Your task to perform on an android device: Check the weather Image 0: 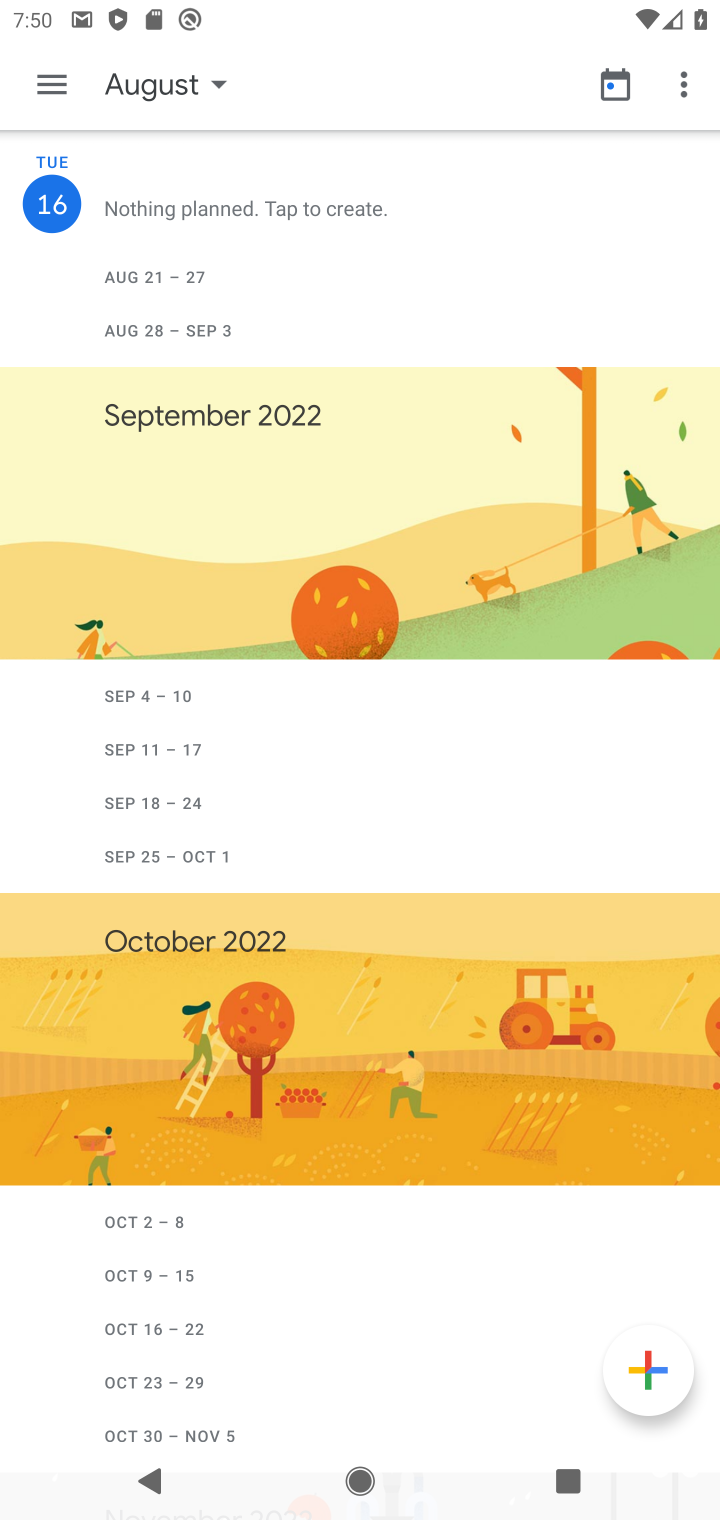
Step 0: press home button
Your task to perform on an android device: Check the weather Image 1: 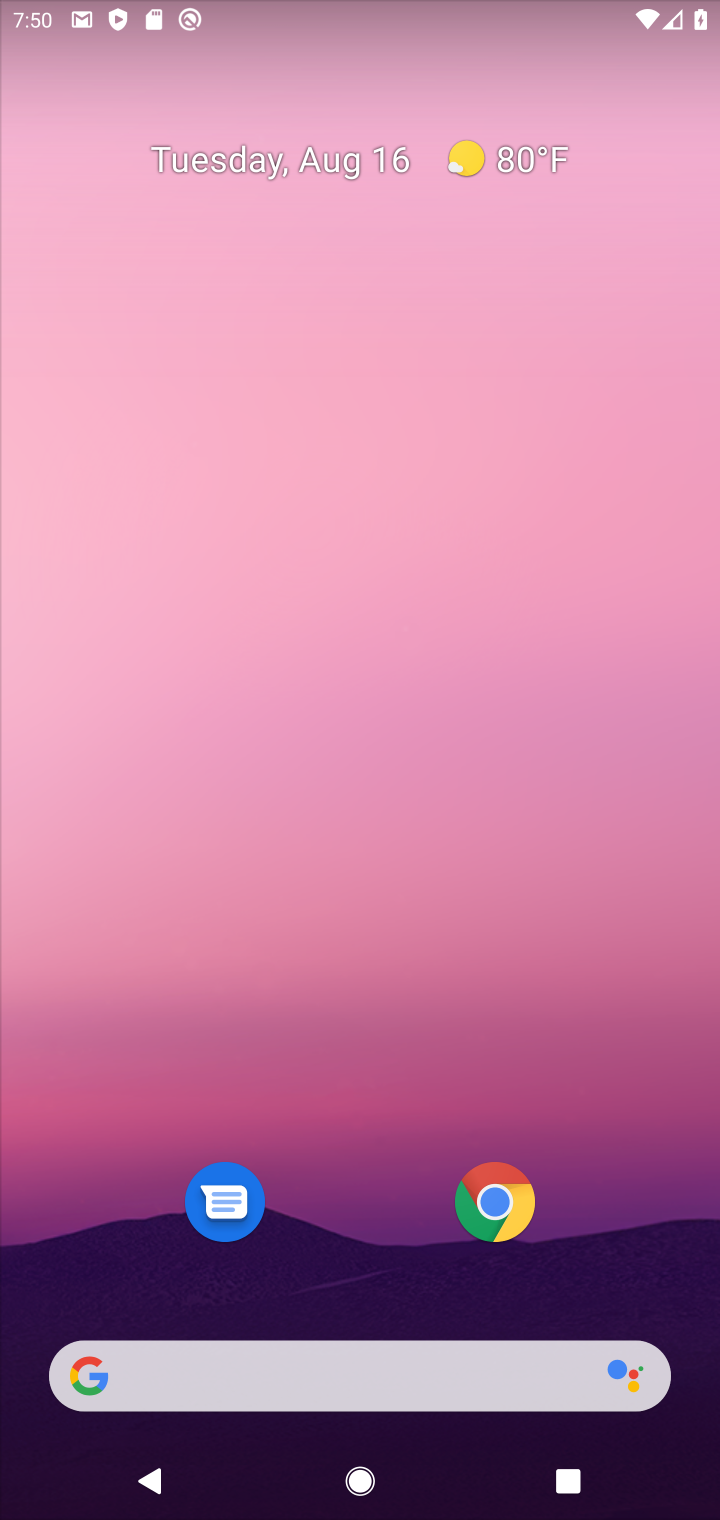
Step 1: click (329, 1368)
Your task to perform on an android device: Check the weather Image 2: 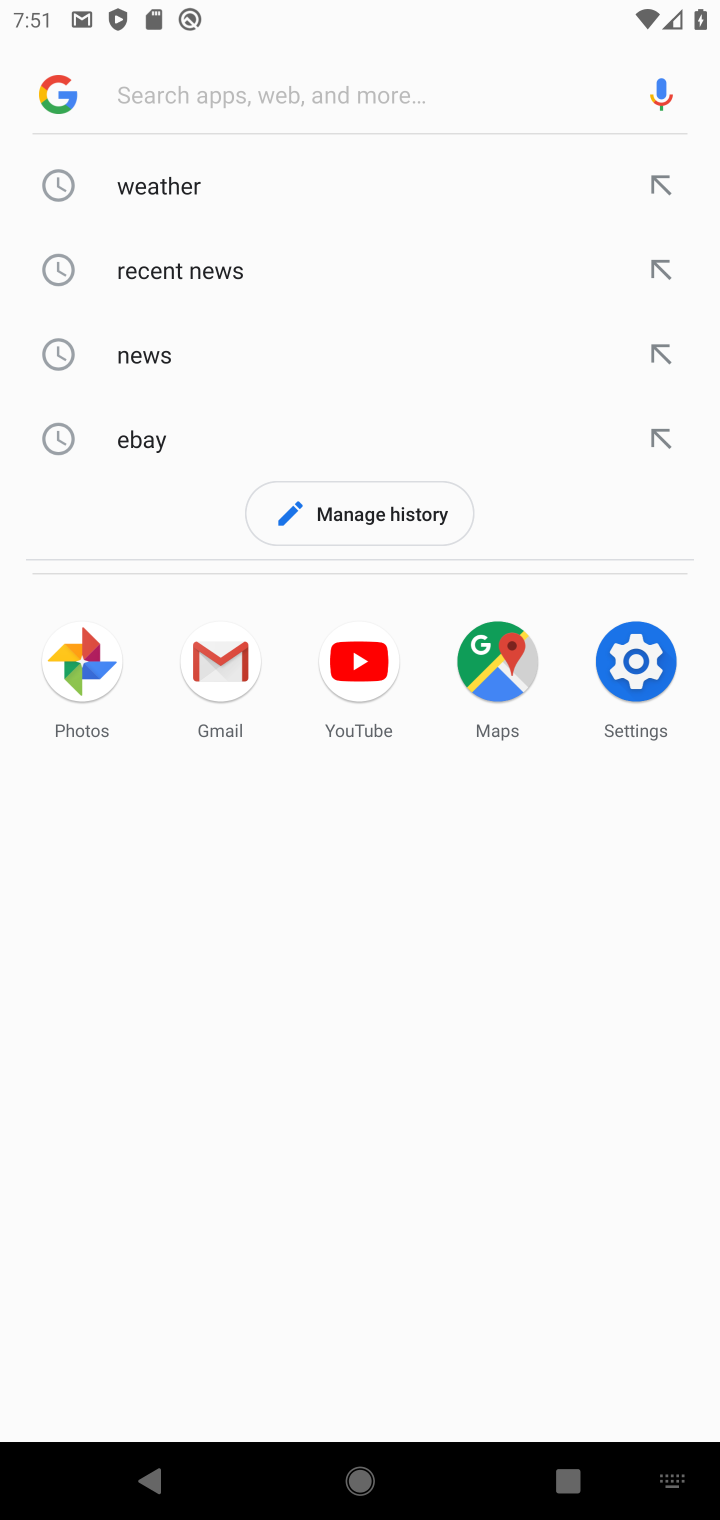
Step 2: click (172, 211)
Your task to perform on an android device: Check the weather Image 3: 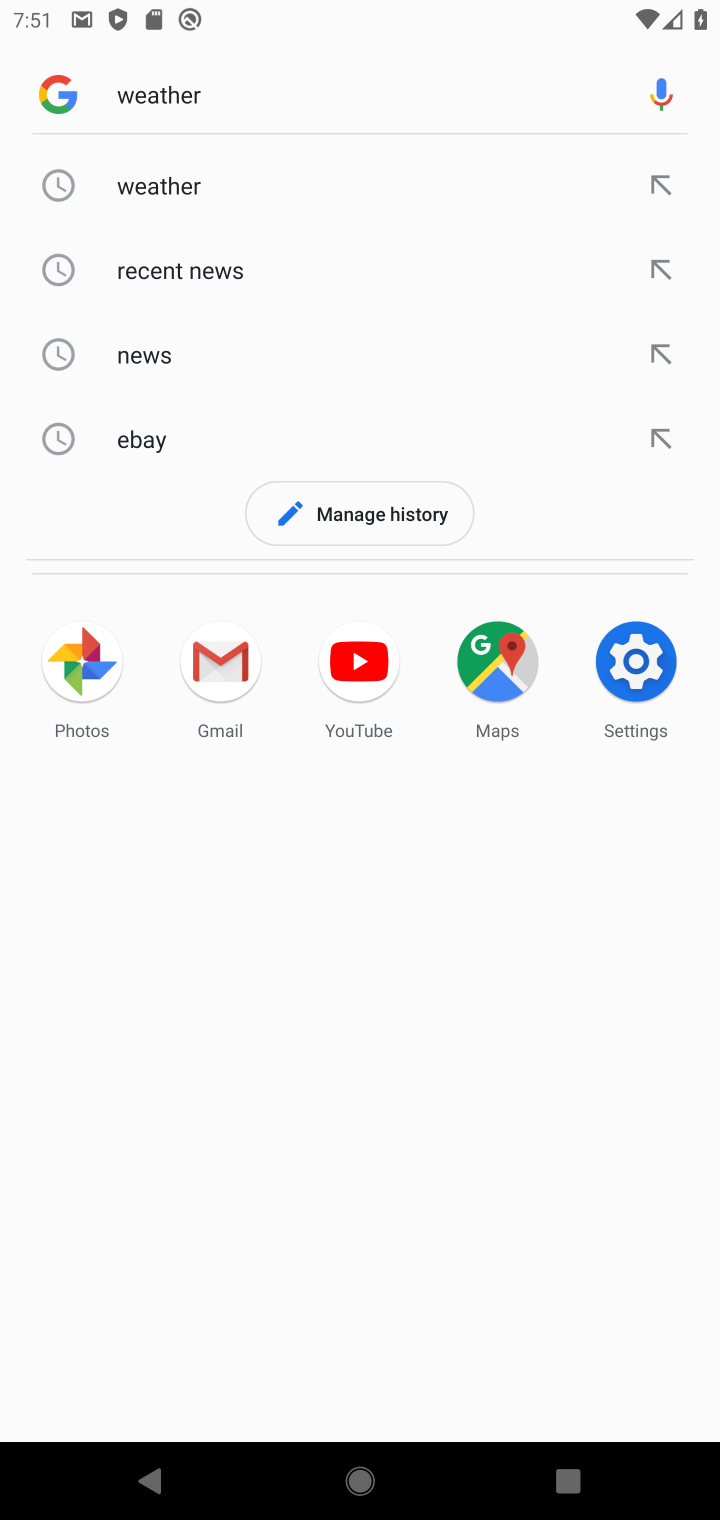
Step 3: task complete